Your task to perform on an android device: Check my email inbox Image 0: 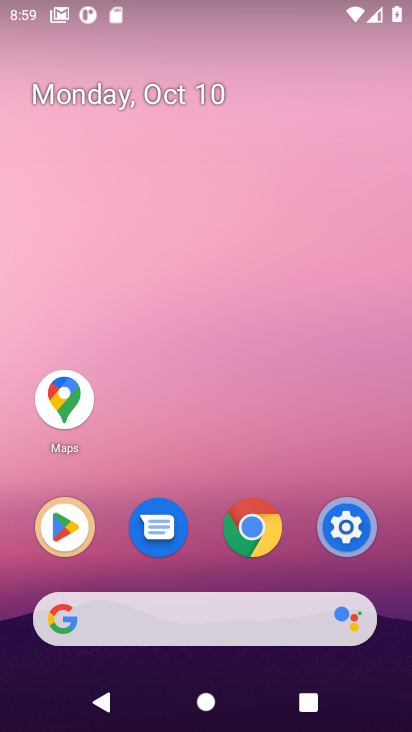
Step 0: drag from (213, 577) to (250, 61)
Your task to perform on an android device: Check my email inbox Image 1: 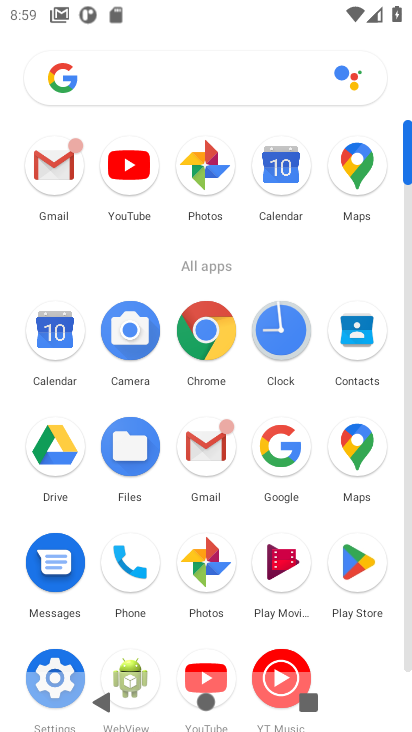
Step 1: click (211, 428)
Your task to perform on an android device: Check my email inbox Image 2: 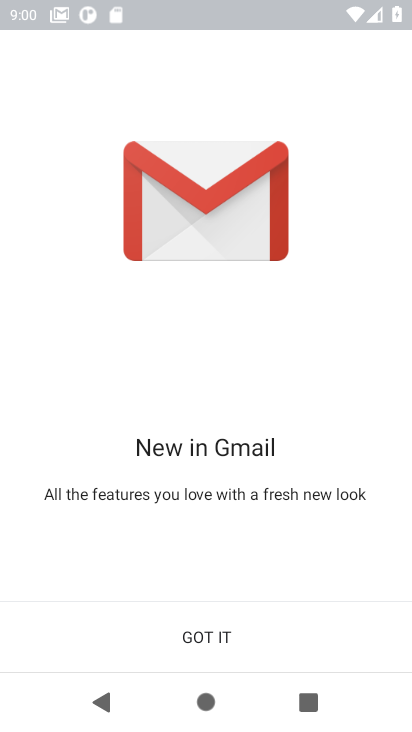
Step 2: click (196, 642)
Your task to perform on an android device: Check my email inbox Image 3: 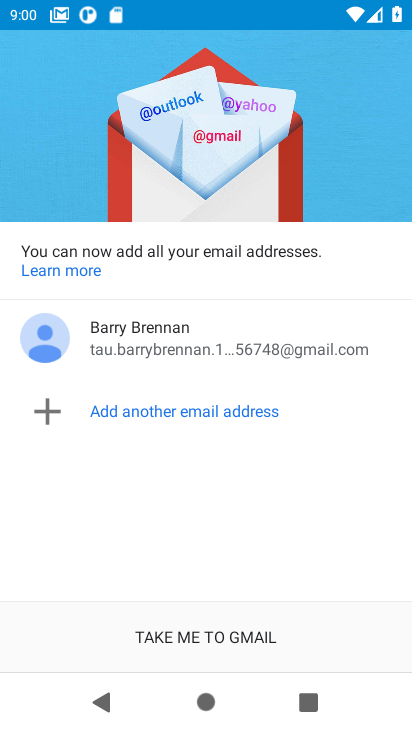
Step 3: click (186, 354)
Your task to perform on an android device: Check my email inbox Image 4: 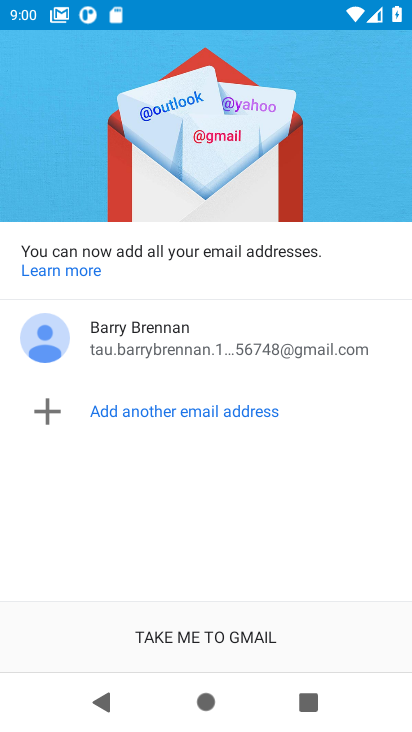
Step 4: click (174, 337)
Your task to perform on an android device: Check my email inbox Image 5: 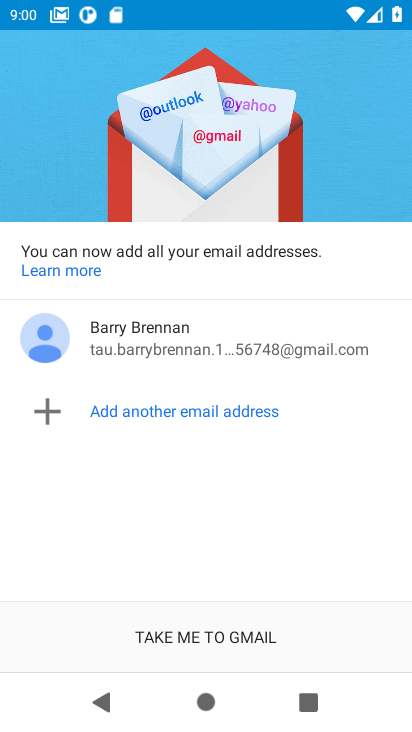
Step 5: click (171, 339)
Your task to perform on an android device: Check my email inbox Image 6: 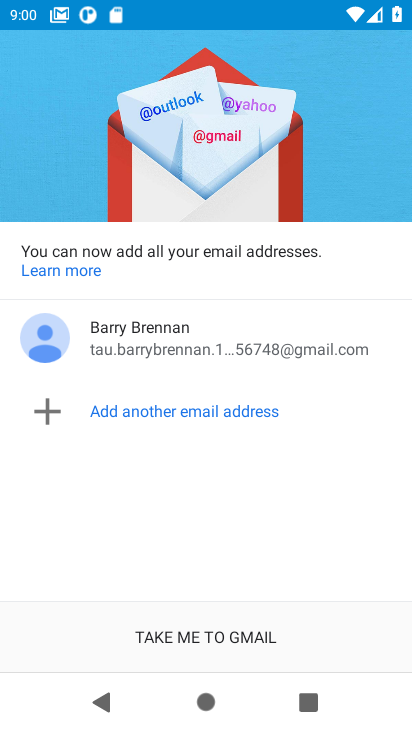
Step 6: click (163, 620)
Your task to perform on an android device: Check my email inbox Image 7: 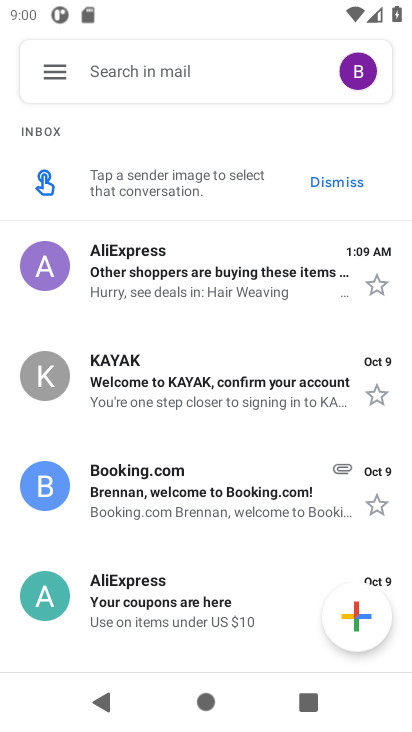
Step 7: click (90, 266)
Your task to perform on an android device: Check my email inbox Image 8: 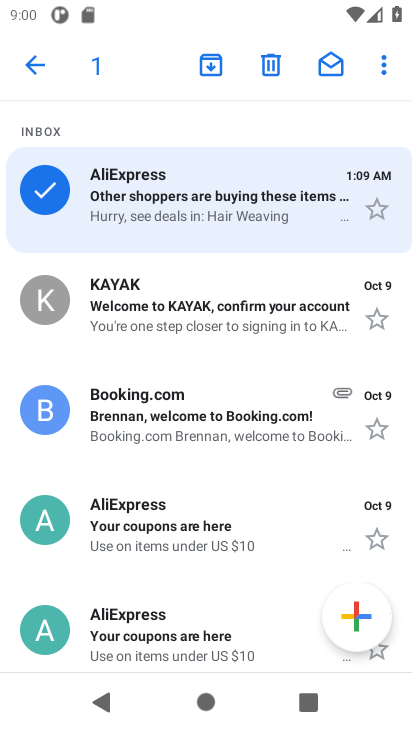
Step 8: click (49, 194)
Your task to perform on an android device: Check my email inbox Image 9: 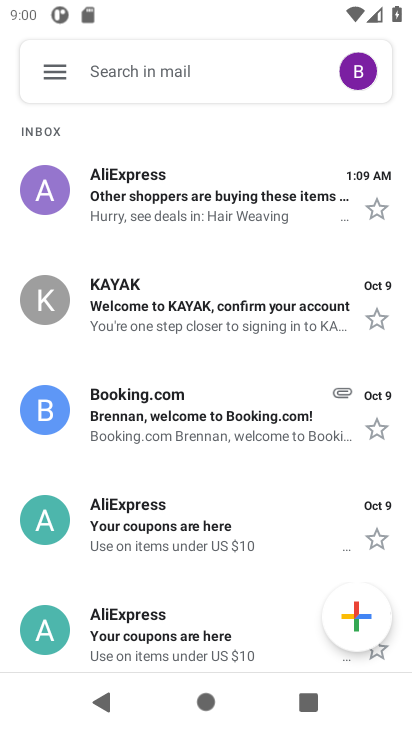
Step 9: click (194, 203)
Your task to perform on an android device: Check my email inbox Image 10: 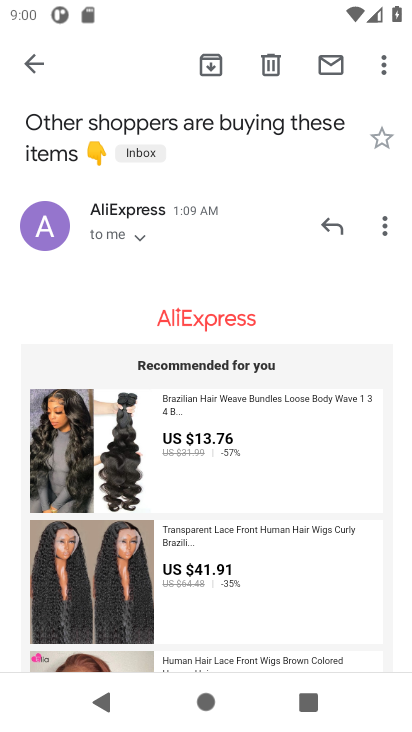
Step 10: drag from (269, 564) to (259, 212)
Your task to perform on an android device: Check my email inbox Image 11: 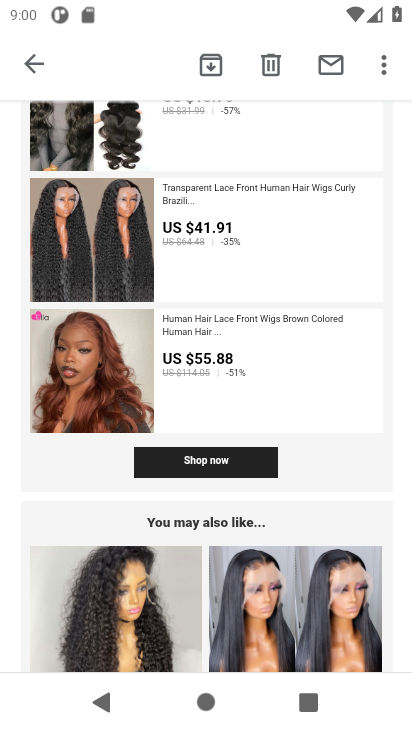
Step 11: drag from (278, 597) to (297, 172)
Your task to perform on an android device: Check my email inbox Image 12: 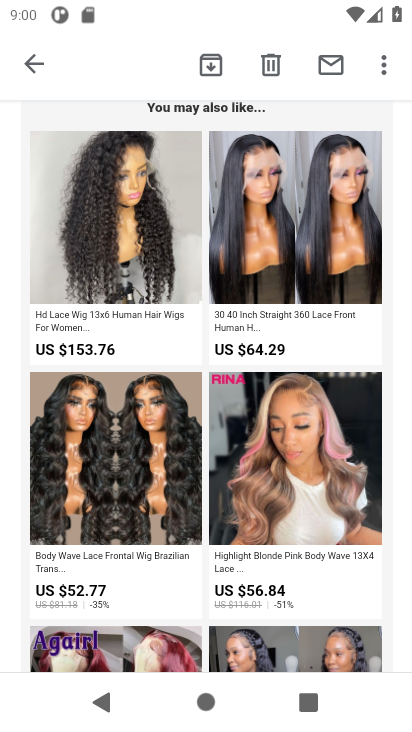
Step 12: drag from (278, 548) to (268, 205)
Your task to perform on an android device: Check my email inbox Image 13: 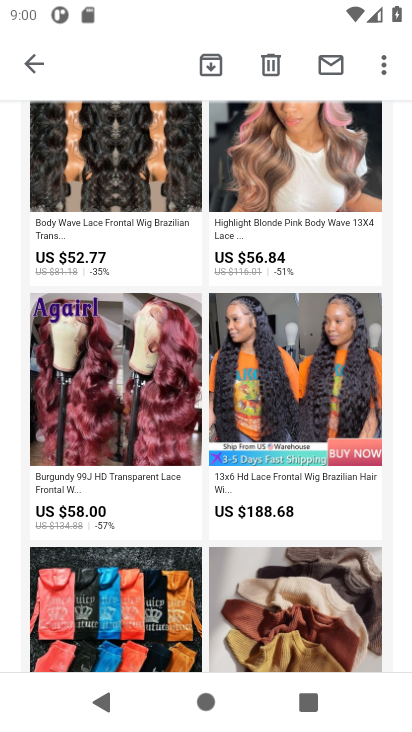
Step 13: drag from (237, 572) to (241, 183)
Your task to perform on an android device: Check my email inbox Image 14: 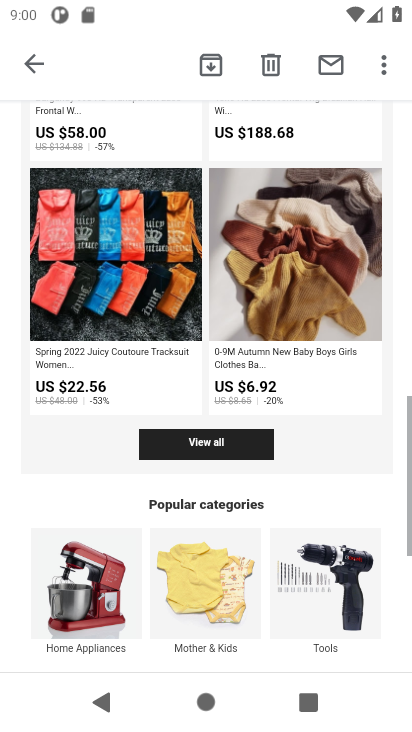
Step 14: drag from (250, 347) to (252, 83)
Your task to perform on an android device: Check my email inbox Image 15: 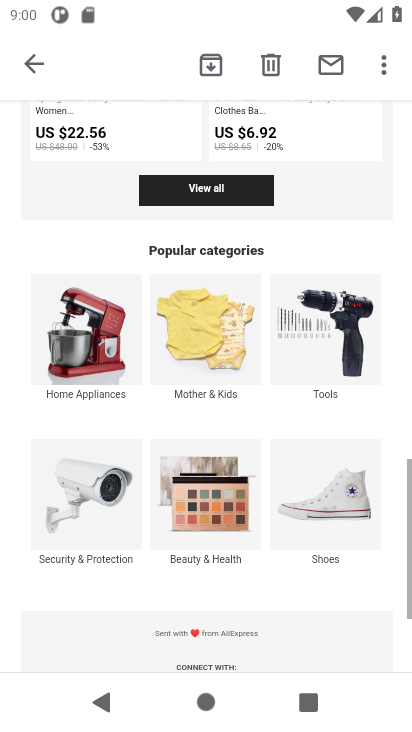
Step 15: click (28, 63)
Your task to perform on an android device: Check my email inbox Image 16: 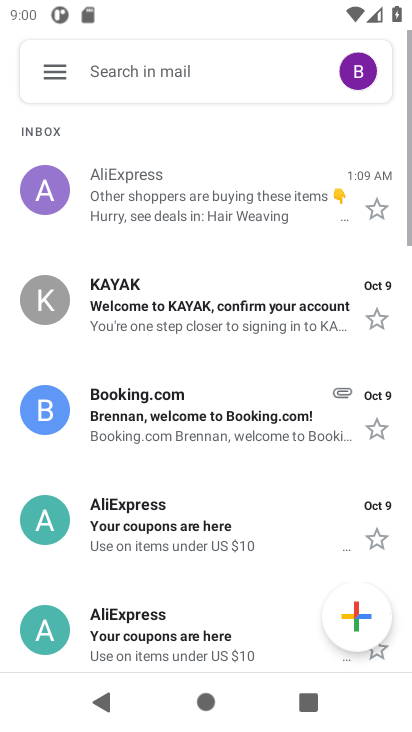
Step 16: click (186, 309)
Your task to perform on an android device: Check my email inbox Image 17: 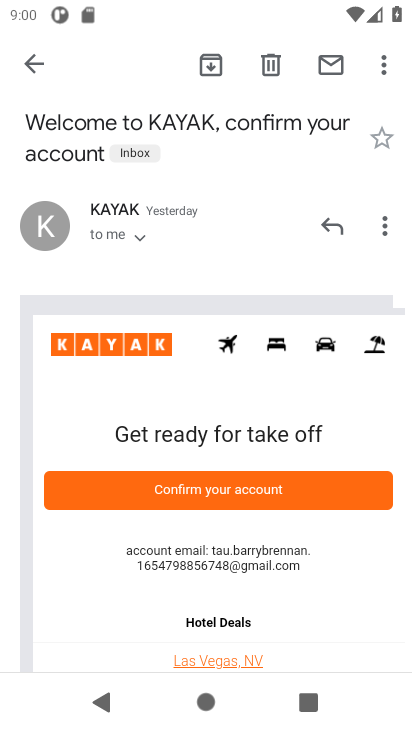
Step 17: drag from (226, 575) to (284, 90)
Your task to perform on an android device: Check my email inbox Image 18: 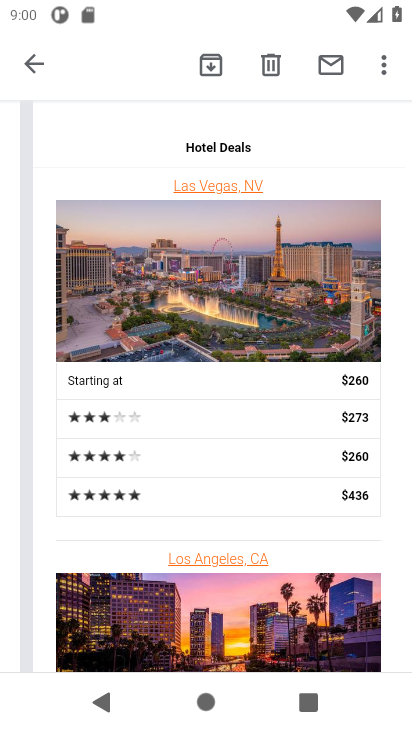
Step 18: drag from (242, 544) to (315, 93)
Your task to perform on an android device: Check my email inbox Image 19: 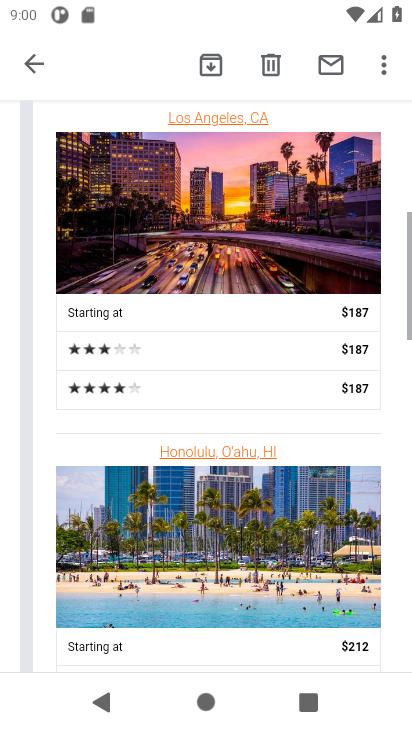
Step 19: drag from (297, 530) to (317, 236)
Your task to perform on an android device: Check my email inbox Image 20: 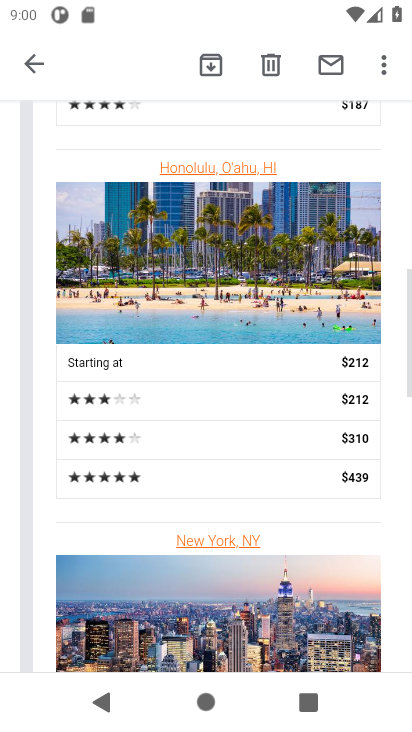
Step 20: drag from (324, 482) to (337, 171)
Your task to perform on an android device: Check my email inbox Image 21: 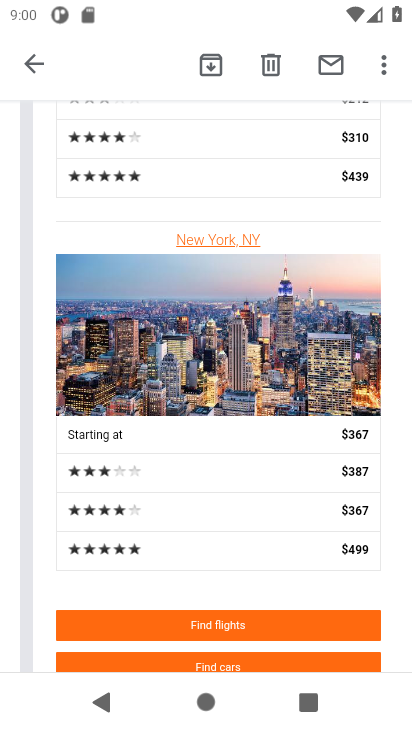
Step 21: click (43, 61)
Your task to perform on an android device: Check my email inbox Image 22: 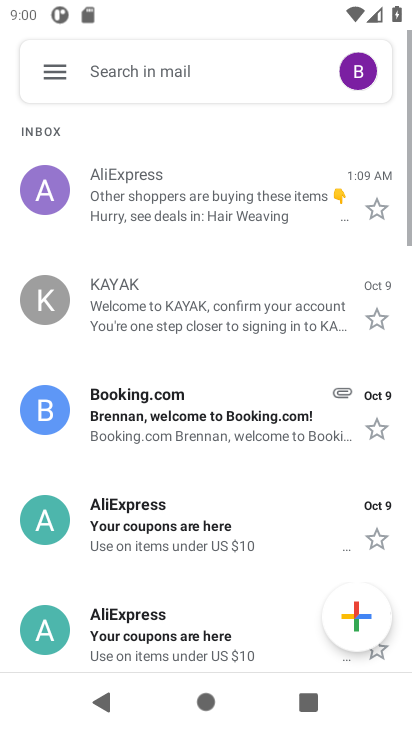
Step 22: click (166, 406)
Your task to perform on an android device: Check my email inbox Image 23: 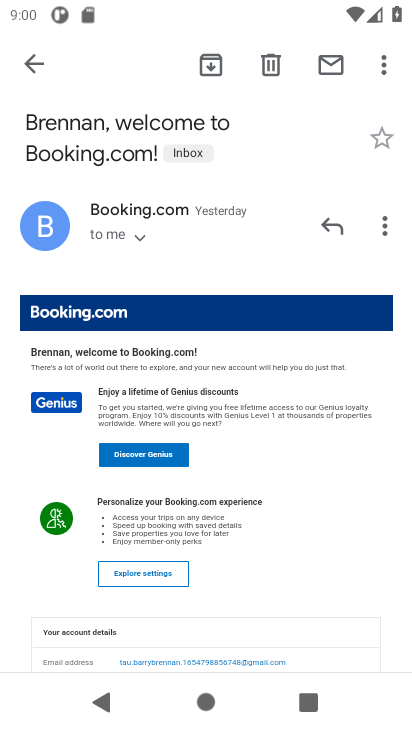
Step 23: drag from (301, 561) to (233, 189)
Your task to perform on an android device: Check my email inbox Image 24: 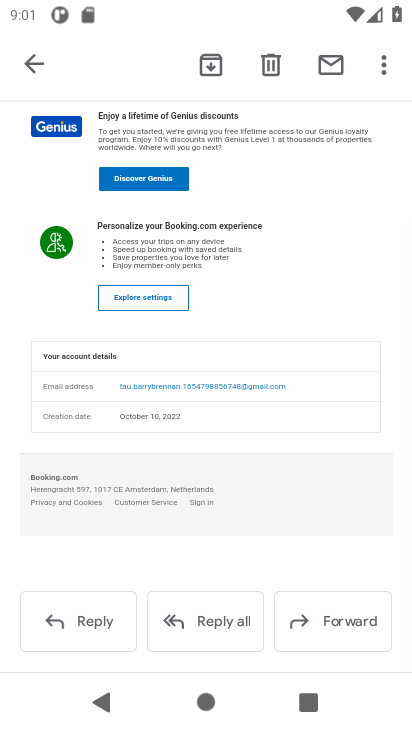
Step 24: drag from (277, 488) to (311, 206)
Your task to perform on an android device: Check my email inbox Image 25: 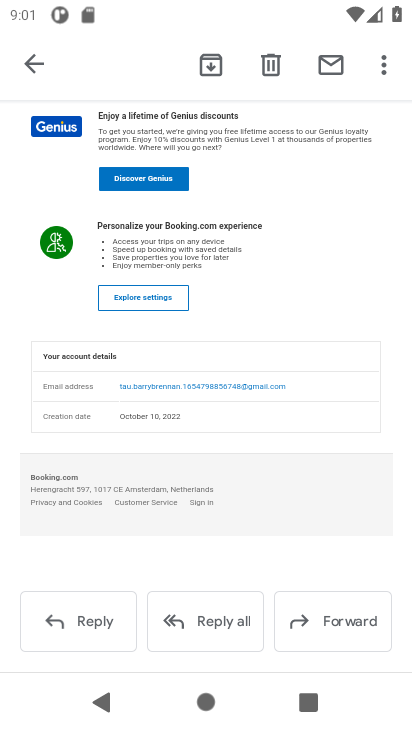
Step 25: click (29, 80)
Your task to perform on an android device: Check my email inbox Image 26: 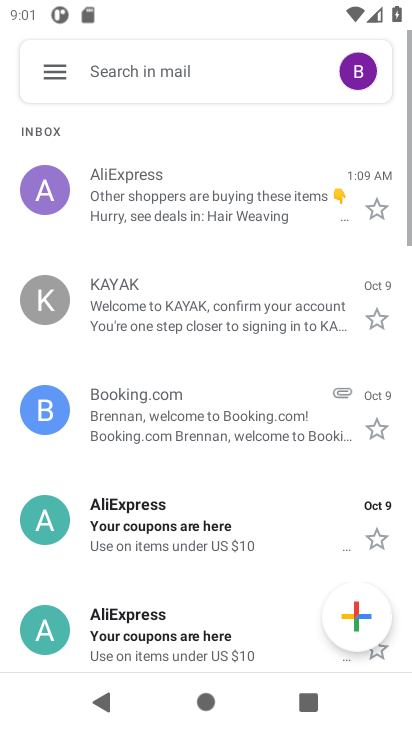
Step 26: click (181, 540)
Your task to perform on an android device: Check my email inbox Image 27: 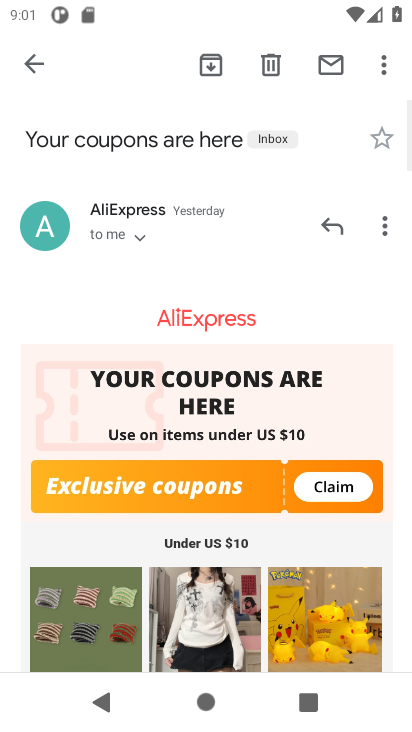
Step 27: drag from (181, 539) to (196, 195)
Your task to perform on an android device: Check my email inbox Image 28: 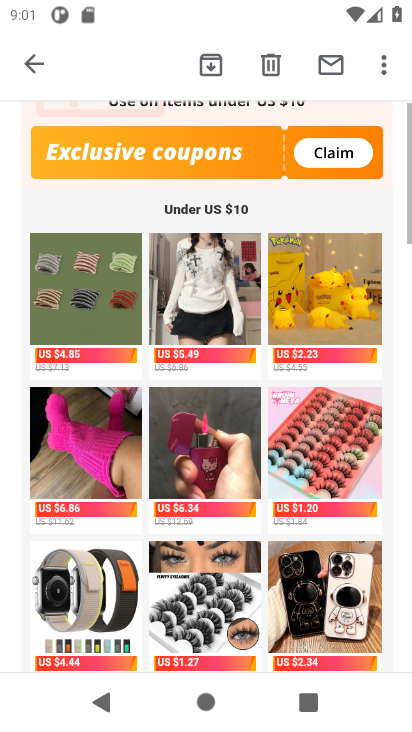
Step 28: drag from (210, 545) to (177, 208)
Your task to perform on an android device: Check my email inbox Image 29: 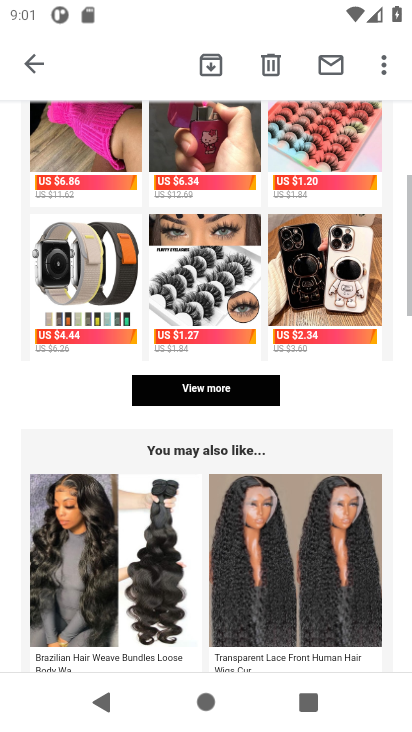
Step 29: drag from (274, 484) to (220, 192)
Your task to perform on an android device: Check my email inbox Image 30: 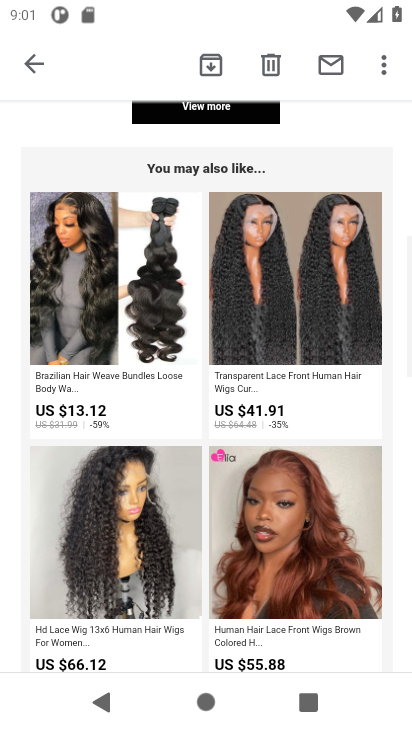
Step 30: drag from (237, 278) to (238, 215)
Your task to perform on an android device: Check my email inbox Image 31: 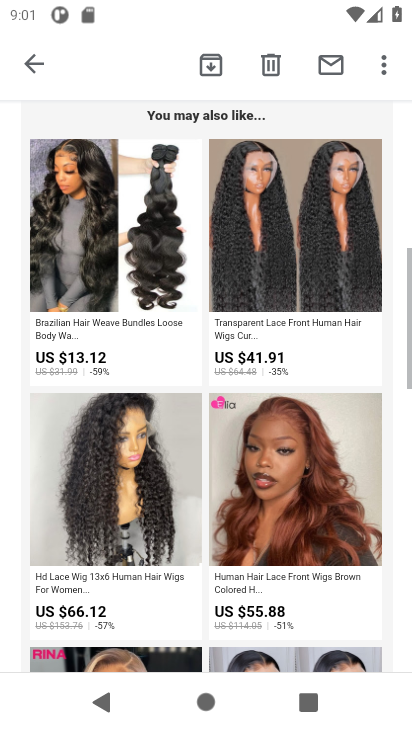
Step 31: click (24, 66)
Your task to perform on an android device: Check my email inbox Image 32: 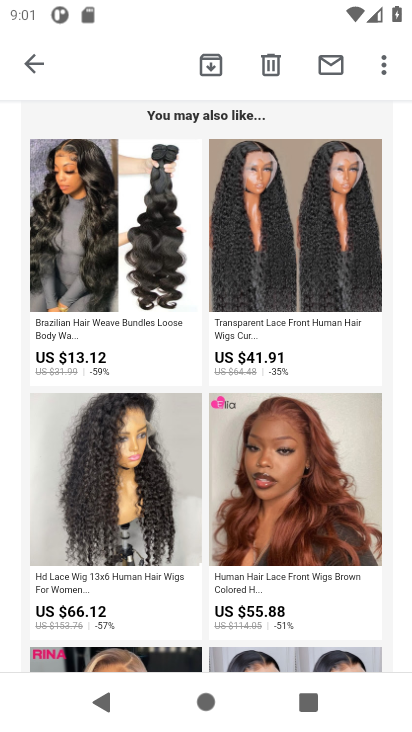
Step 32: click (32, 61)
Your task to perform on an android device: Check my email inbox Image 33: 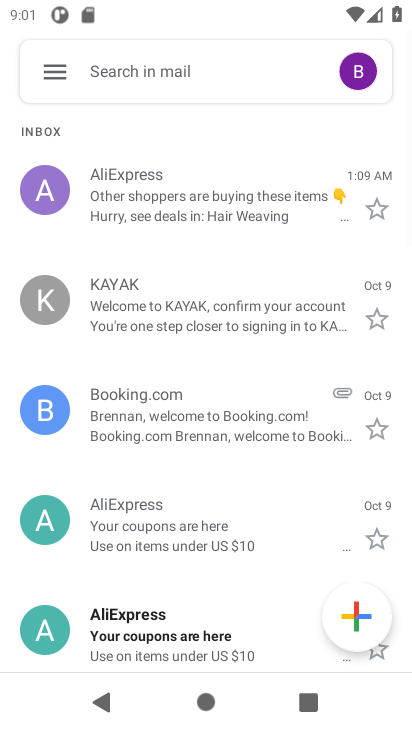
Step 33: drag from (177, 586) to (217, 204)
Your task to perform on an android device: Check my email inbox Image 34: 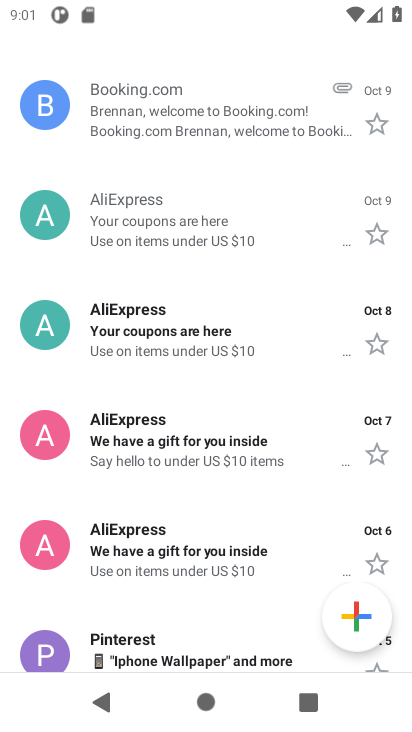
Step 34: drag from (158, 510) to (171, 273)
Your task to perform on an android device: Check my email inbox Image 35: 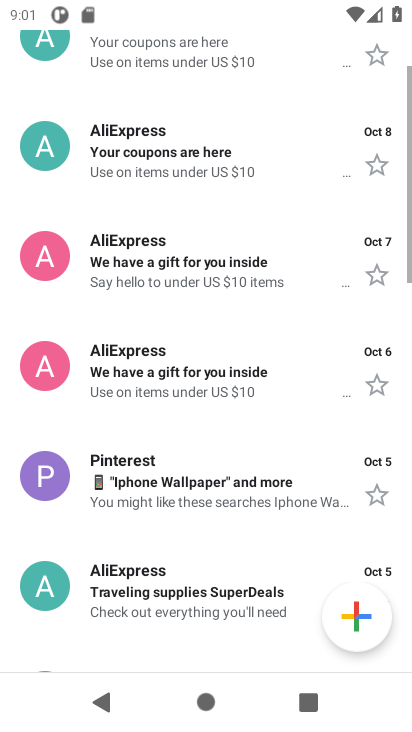
Step 35: click (137, 467)
Your task to perform on an android device: Check my email inbox Image 36: 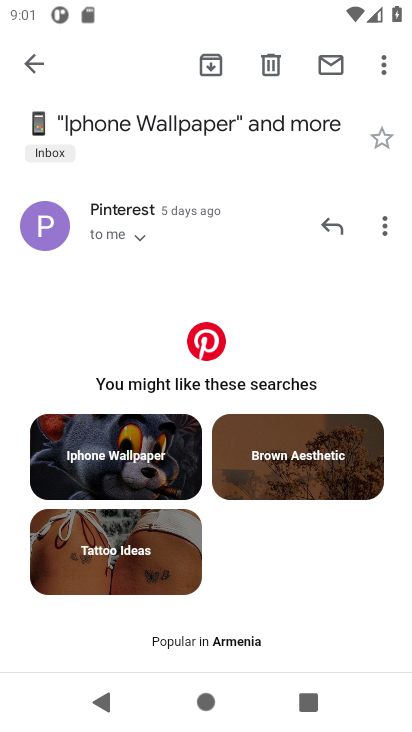
Step 36: drag from (212, 565) to (209, 148)
Your task to perform on an android device: Check my email inbox Image 37: 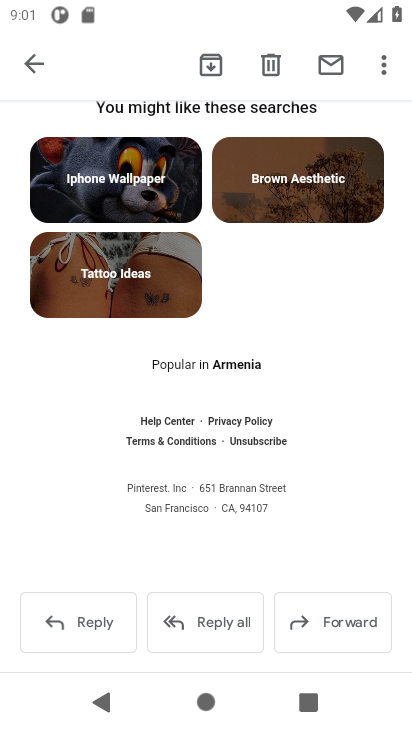
Step 37: drag from (238, 498) to (221, 228)
Your task to perform on an android device: Check my email inbox Image 38: 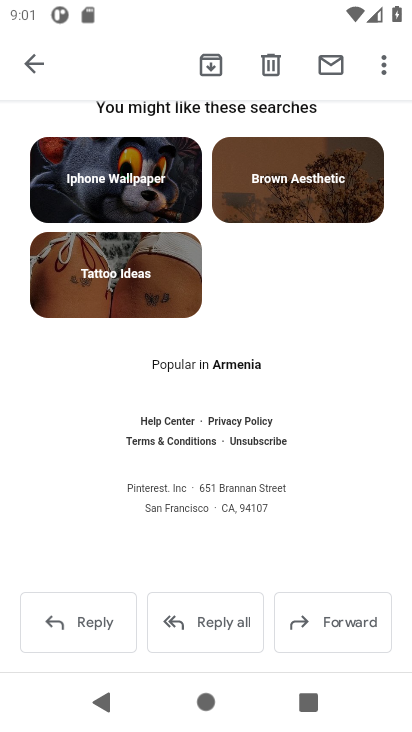
Step 38: drag from (217, 481) to (233, 289)
Your task to perform on an android device: Check my email inbox Image 39: 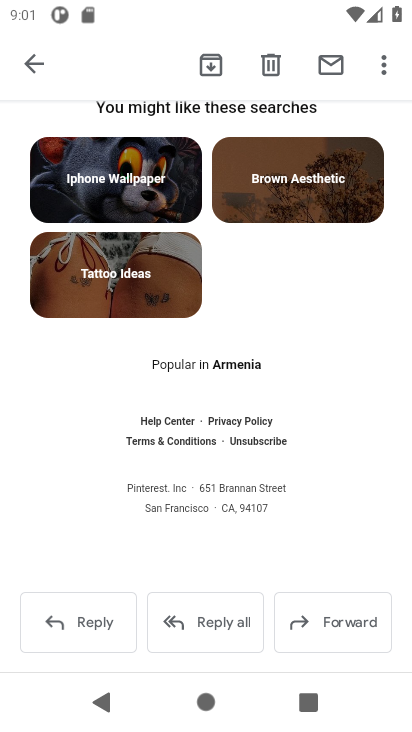
Step 39: drag from (252, 452) to (299, 114)
Your task to perform on an android device: Check my email inbox Image 40: 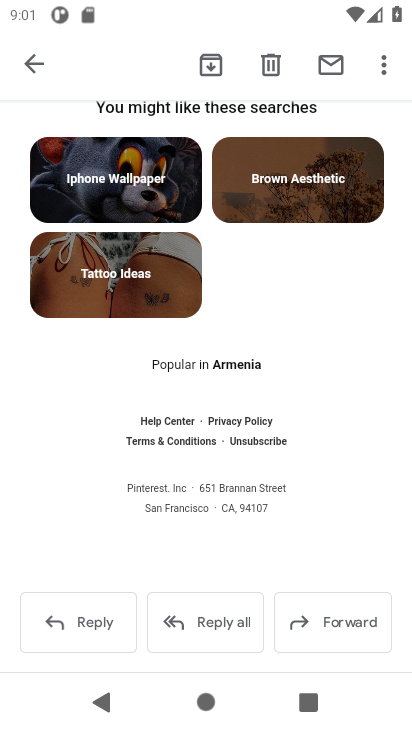
Step 40: drag from (264, 516) to (263, 327)
Your task to perform on an android device: Check my email inbox Image 41: 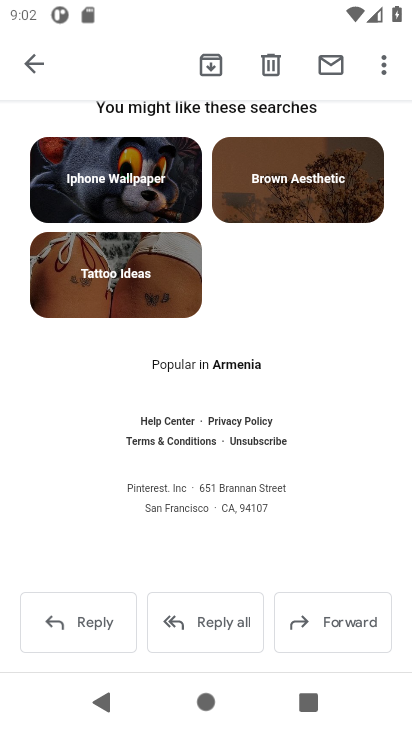
Step 41: click (21, 54)
Your task to perform on an android device: Check my email inbox Image 42: 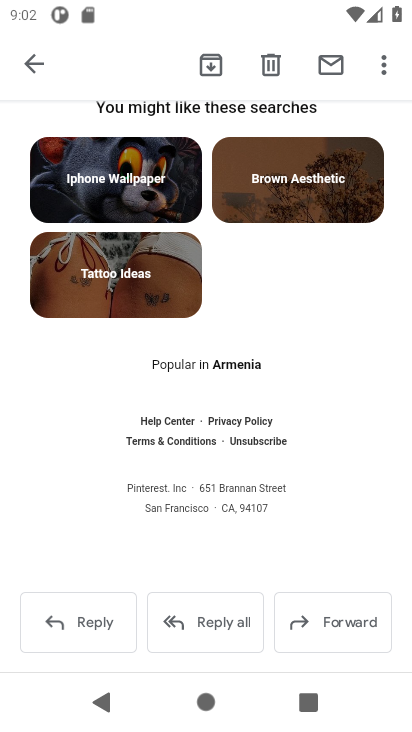
Step 42: click (40, 76)
Your task to perform on an android device: Check my email inbox Image 43: 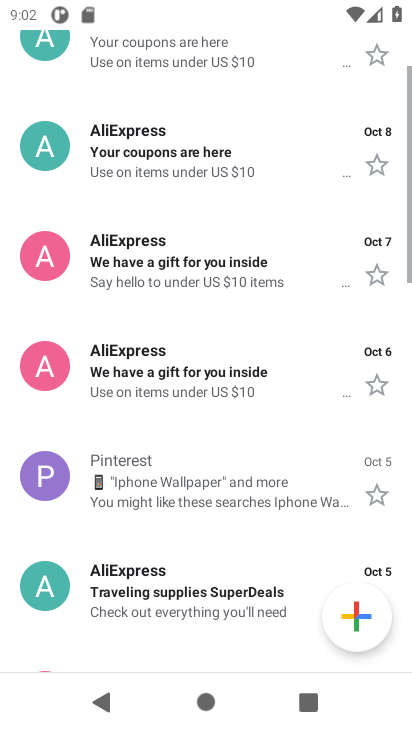
Step 43: drag from (255, 603) to (255, 165)
Your task to perform on an android device: Check my email inbox Image 44: 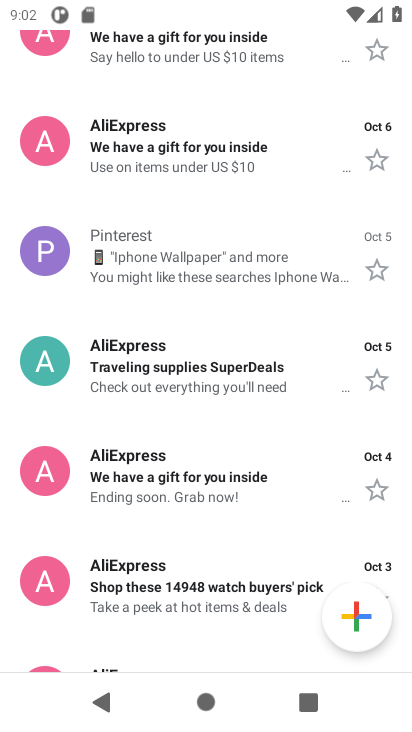
Step 44: drag from (229, 450) to (240, 222)
Your task to perform on an android device: Check my email inbox Image 45: 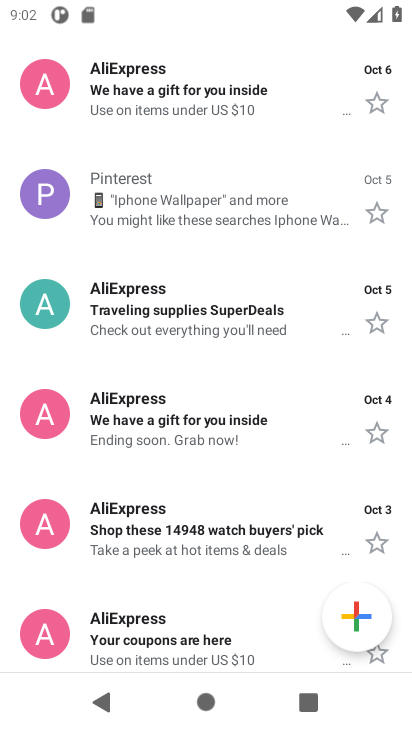
Step 45: click (136, 425)
Your task to perform on an android device: Check my email inbox Image 46: 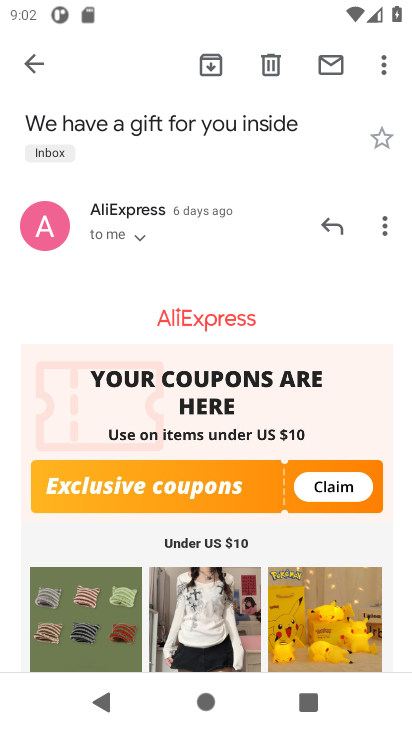
Step 46: task complete